Your task to perform on an android device: toggle pop-ups in chrome Image 0: 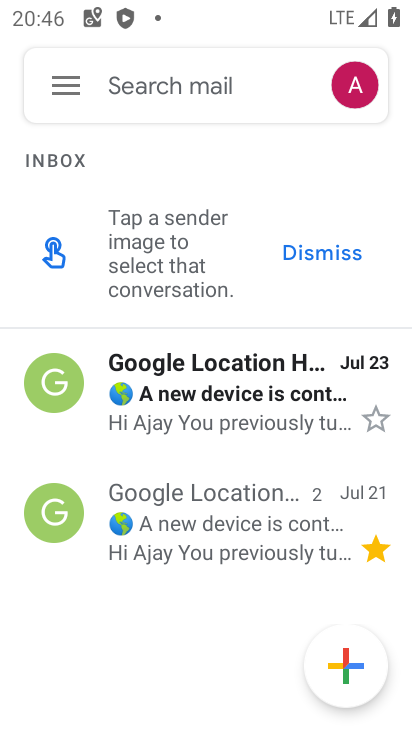
Step 0: press home button
Your task to perform on an android device: toggle pop-ups in chrome Image 1: 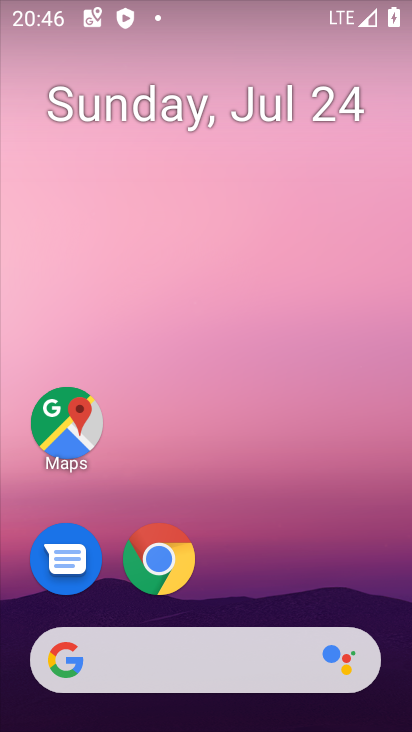
Step 1: drag from (330, 527) to (360, 73)
Your task to perform on an android device: toggle pop-ups in chrome Image 2: 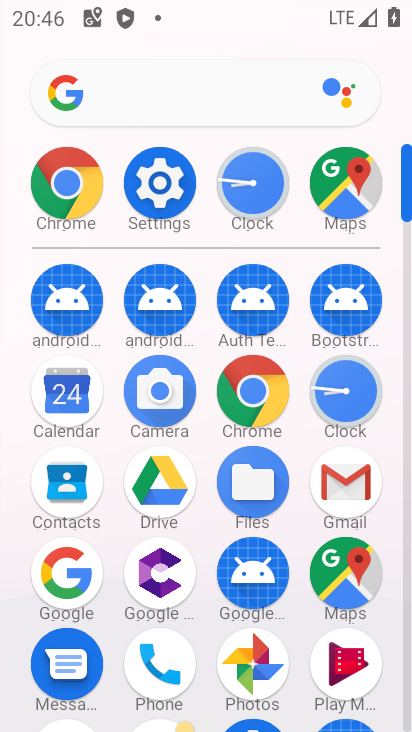
Step 2: click (258, 391)
Your task to perform on an android device: toggle pop-ups in chrome Image 3: 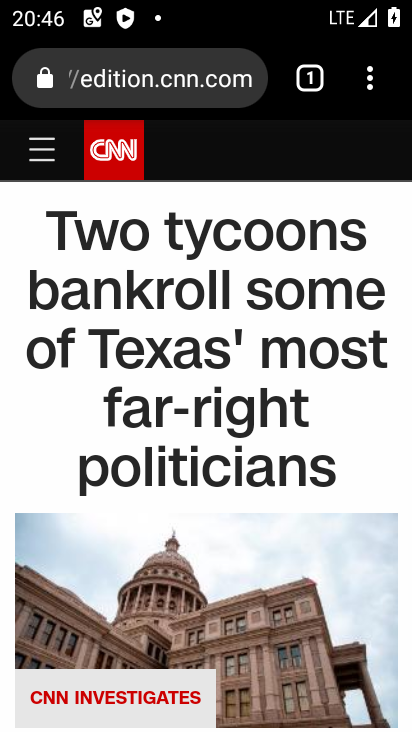
Step 3: click (368, 89)
Your task to perform on an android device: toggle pop-ups in chrome Image 4: 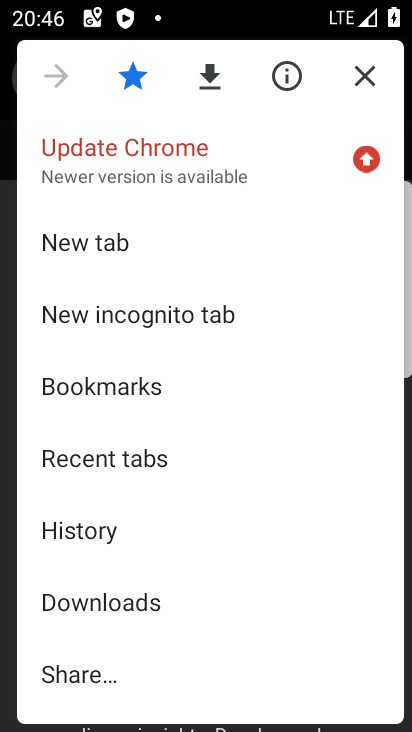
Step 4: drag from (295, 460) to (300, 377)
Your task to perform on an android device: toggle pop-ups in chrome Image 5: 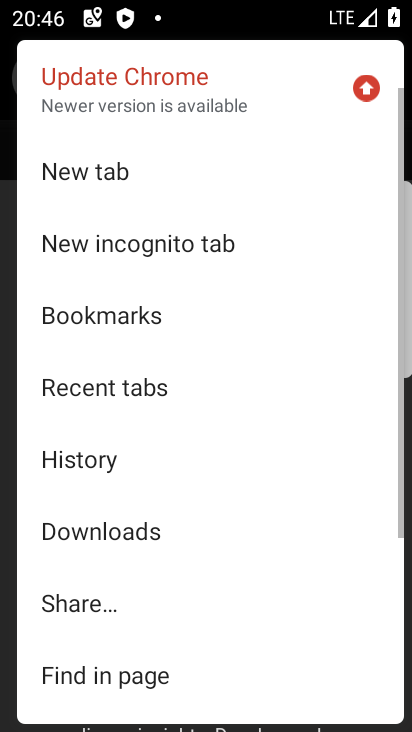
Step 5: drag from (301, 529) to (307, 409)
Your task to perform on an android device: toggle pop-ups in chrome Image 6: 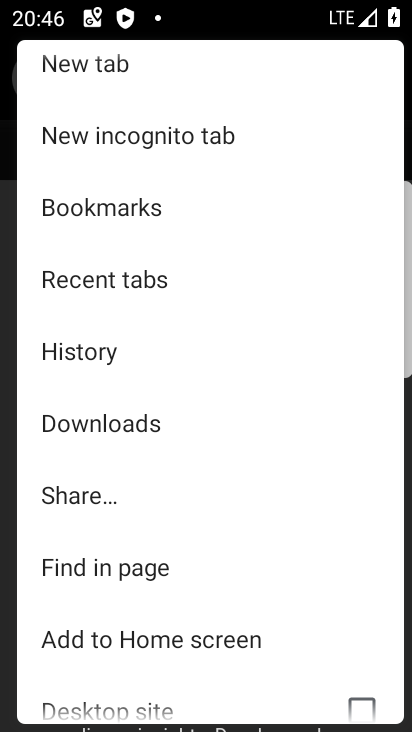
Step 6: drag from (290, 537) to (292, 381)
Your task to perform on an android device: toggle pop-ups in chrome Image 7: 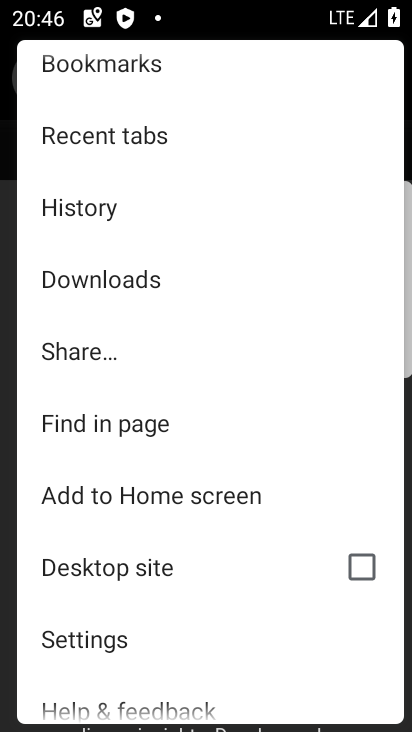
Step 7: drag from (299, 598) to (301, 421)
Your task to perform on an android device: toggle pop-ups in chrome Image 8: 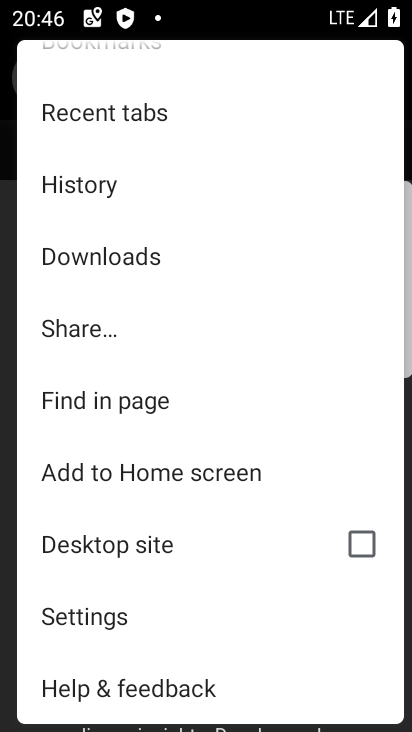
Step 8: click (128, 621)
Your task to perform on an android device: toggle pop-ups in chrome Image 9: 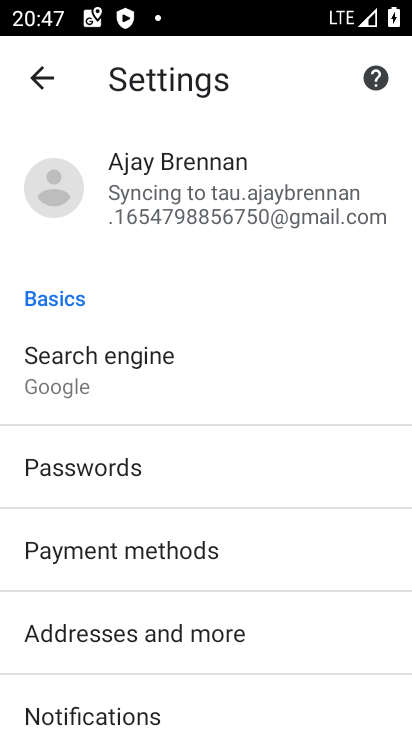
Step 9: drag from (351, 538) to (354, 464)
Your task to perform on an android device: toggle pop-ups in chrome Image 10: 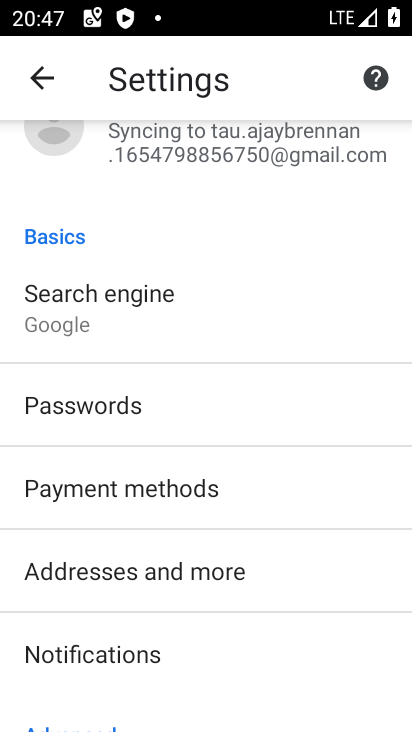
Step 10: drag from (323, 574) to (323, 469)
Your task to perform on an android device: toggle pop-ups in chrome Image 11: 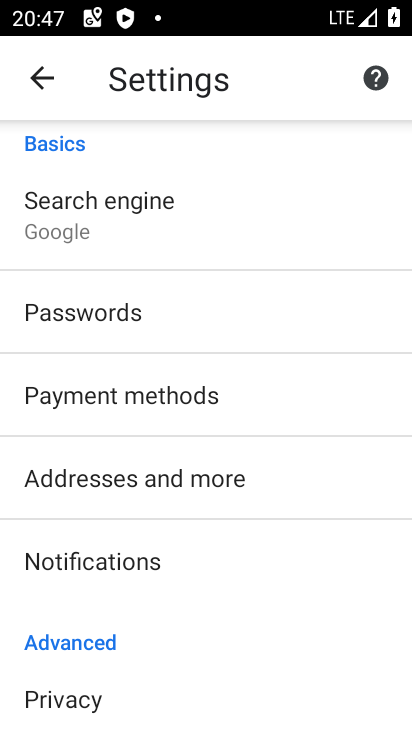
Step 11: drag from (323, 541) to (323, 433)
Your task to perform on an android device: toggle pop-ups in chrome Image 12: 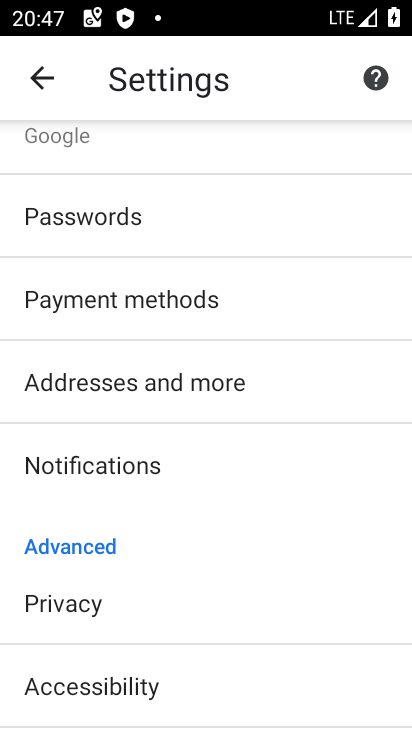
Step 12: drag from (313, 569) to (315, 440)
Your task to perform on an android device: toggle pop-ups in chrome Image 13: 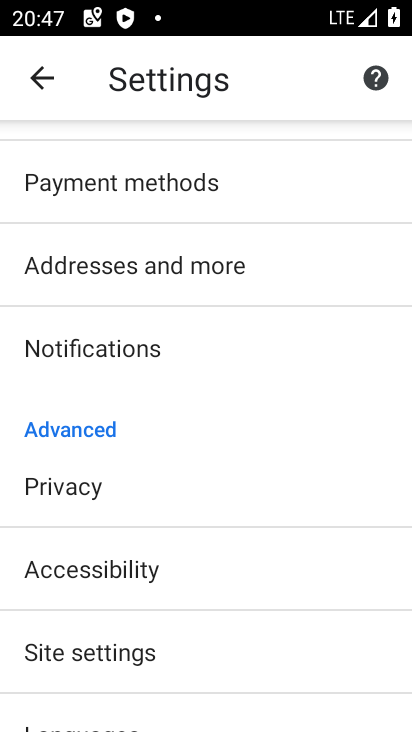
Step 13: drag from (323, 533) to (334, 429)
Your task to perform on an android device: toggle pop-ups in chrome Image 14: 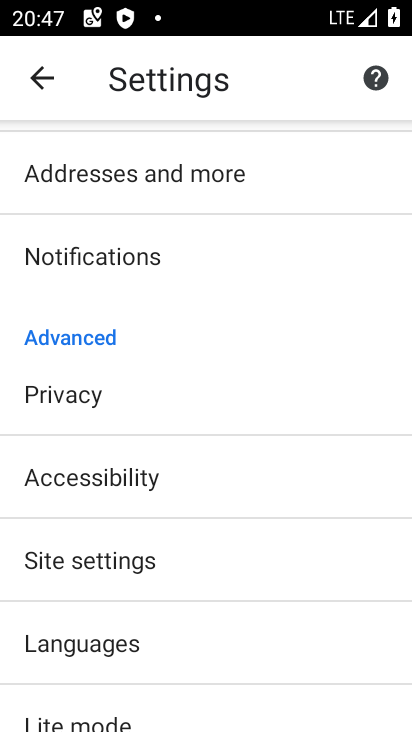
Step 14: drag from (330, 541) to (326, 409)
Your task to perform on an android device: toggle pop-ups in chrome Image 15: 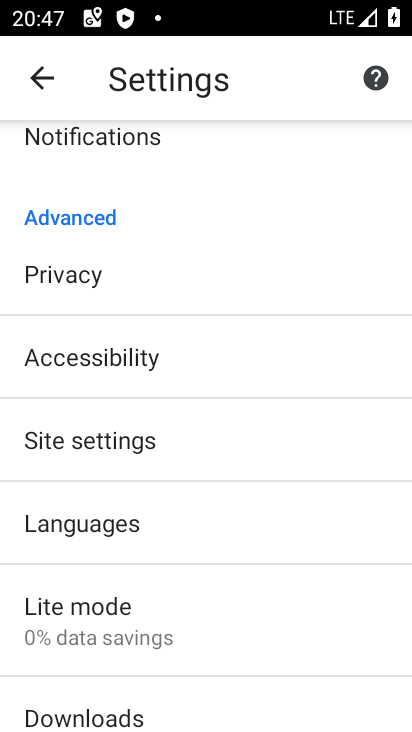
Step 15: drag from (324, 568) to (323, 412)
Your task to perform on an android device: toggle pop-ups in chrome Image 16: 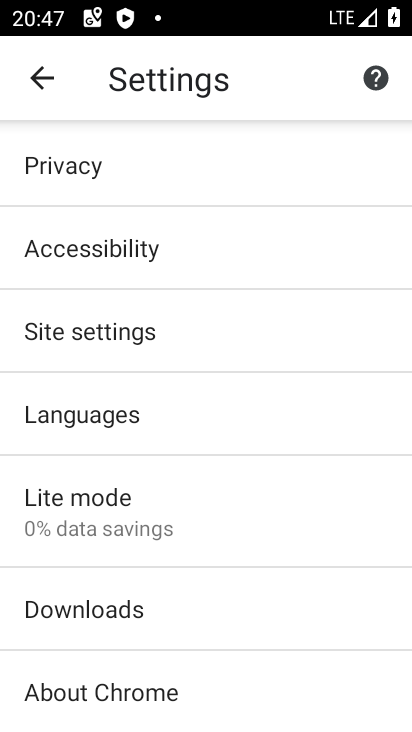
Step 16: click (224, 318)
Your task to perform on an android device: toggle pop-ups in chrome Image 17: 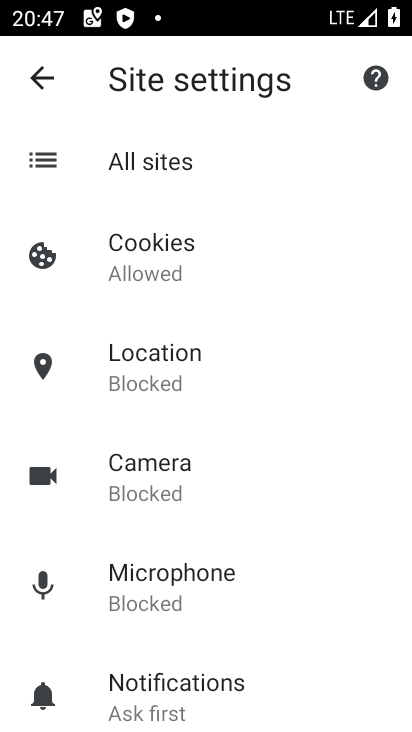
Step 17: drag from (306, 533) to (307, 433)
Your task to perform on an android device: toggle pop-ups in chrome Image 18: 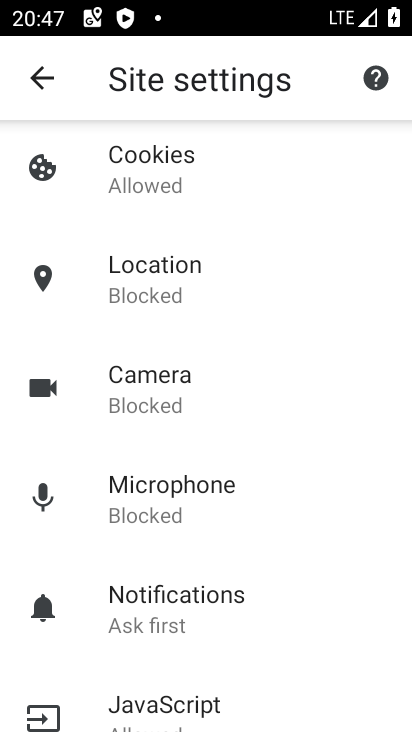
Step 18: drag from (316, 557) to (317, 460)
Your task to perform on an android device: toggle pop-ups in chrome Image 19: 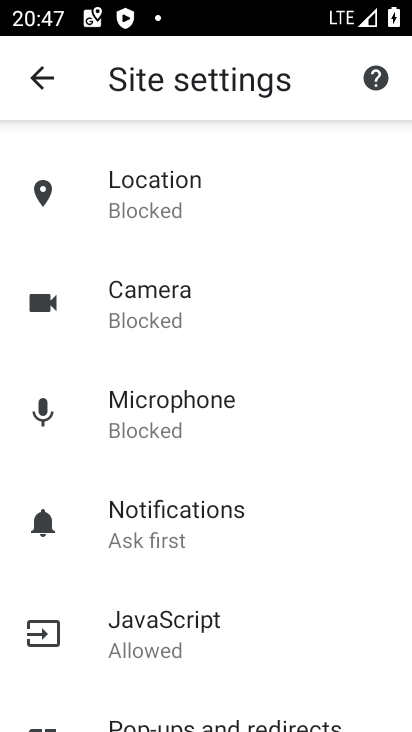
Step 19: drag from (318, 577) to (317, 461)
Your task to perform on an android device: toggle pop-ups in chrome Image 20: 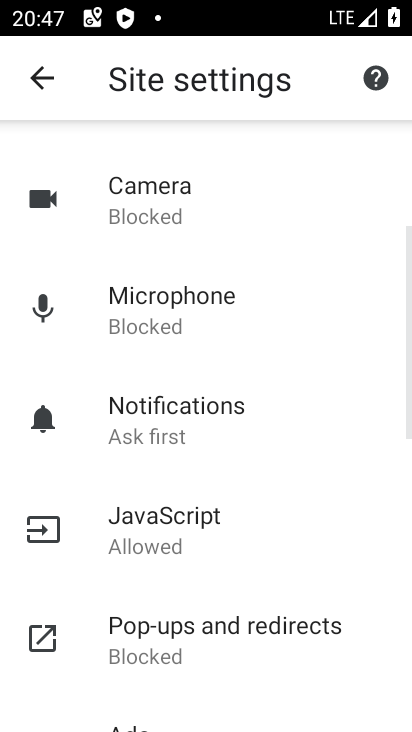
Step 20: drag from (346, 515) to (348, 414)
Your task to perform on an android device: toggle pop-ups in chrome Image 21: 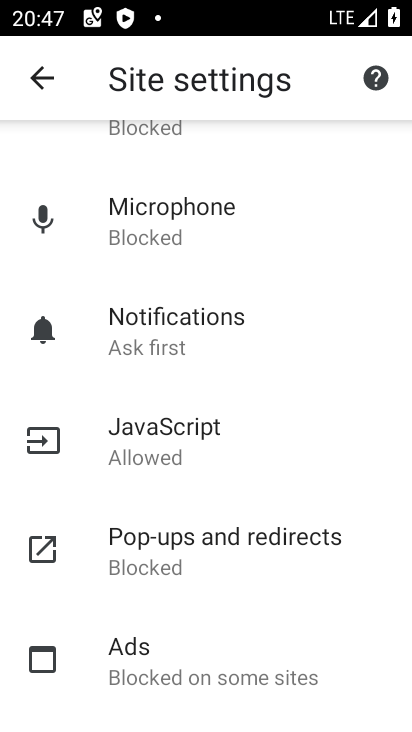
Step 21: drag from (348, 622) to (344, 460)
Your task to perform on an android device: toggle pop-ups in chrome Image 22: 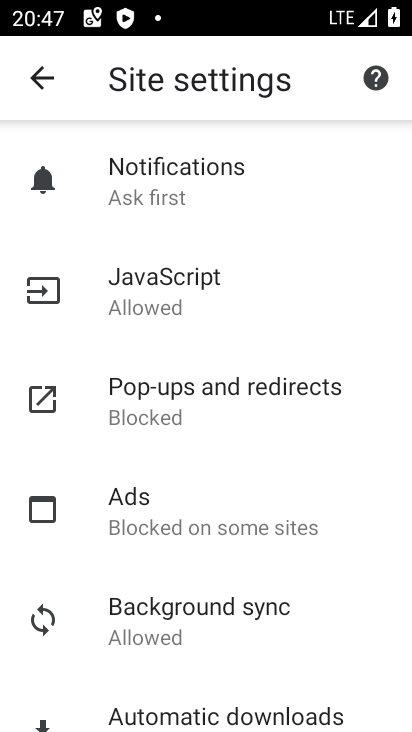
Step 22: click (313, 401)
Your task to perform on an android device: toggle pop-ups in chrome Image 23: 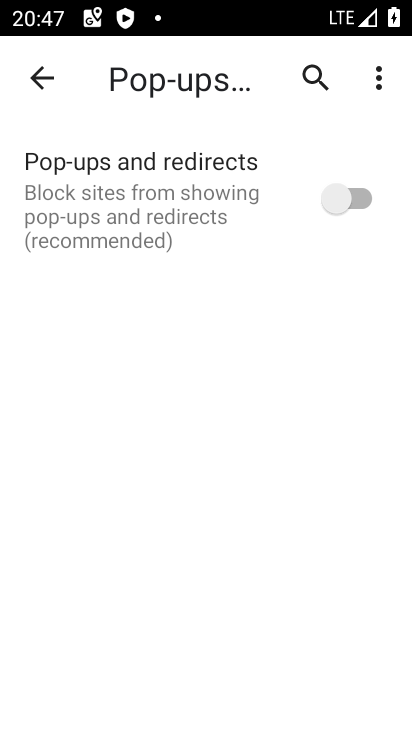
Step 23: click (333, 197)
Your task to perform on an android device: toggle pop-ups in chrome Image 24: 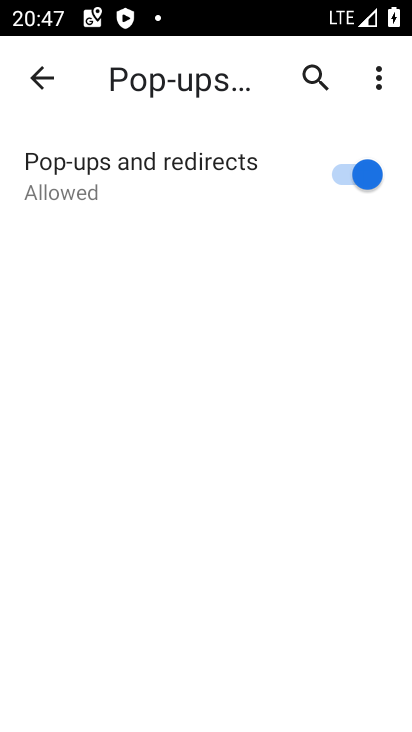
Step 24: task complete